Your task to perform on an android device: Open Maps and search for coffee Image 0: 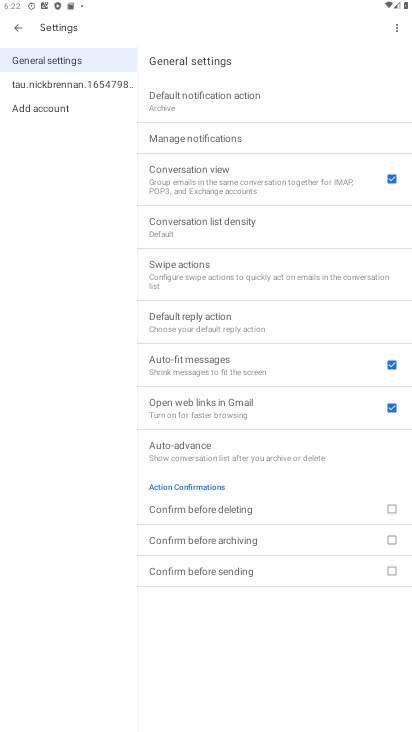
Step 0: press home button
Your task to perform on an android device: Open Maps and search for coffee Image 1: 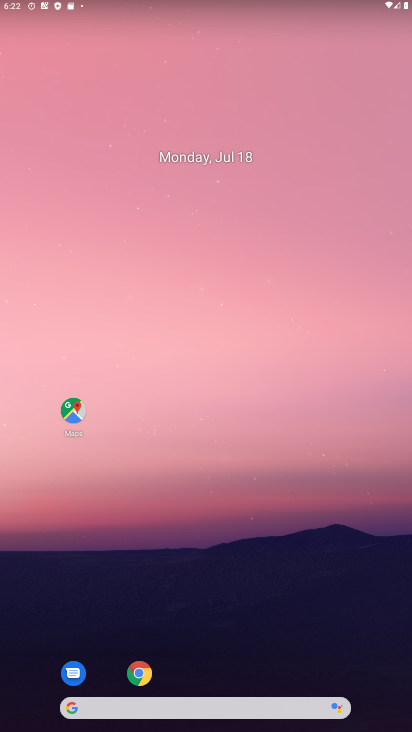
Step 1: click (77, 411)
Your task to perform on an android device: Open Maps and search for coffee Image 2: 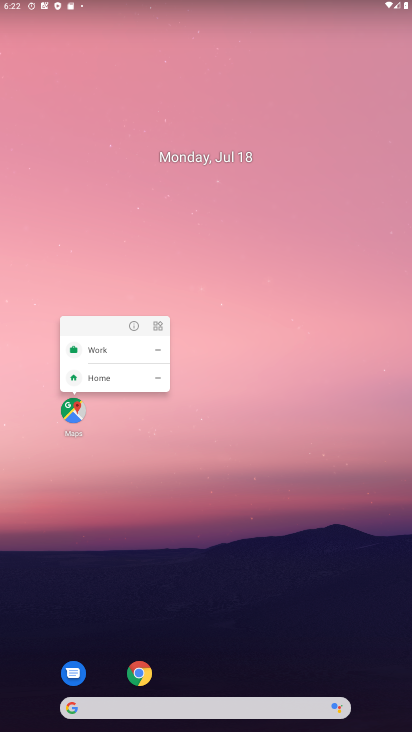
Step 2: click (77, 411)
Your task to perform on an android device: Open Maps and search for coffee Image 3: 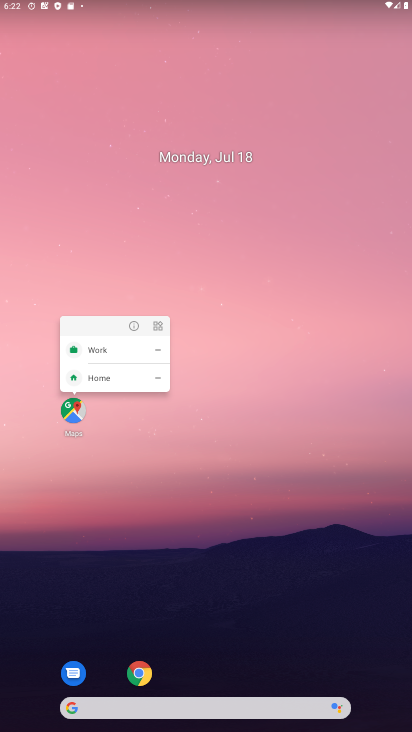
Step 3: click (77, 411)
Your task to perform on an android device: Open Maps and search for coffee Image 4: 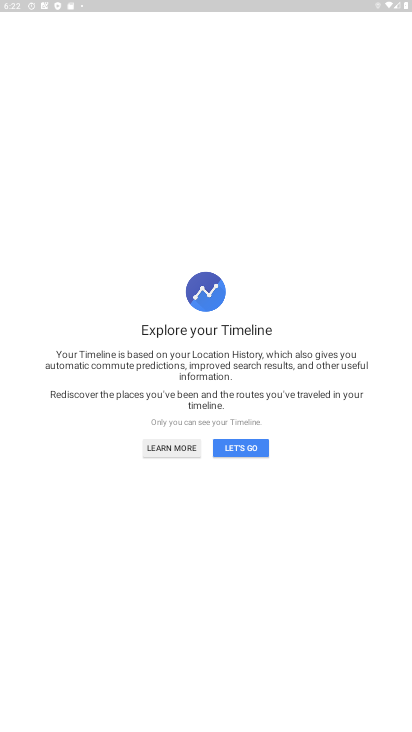
Step 4: click (230, 442)
Your task to perform on an android device: Open Maps and search for coffee Image 5: 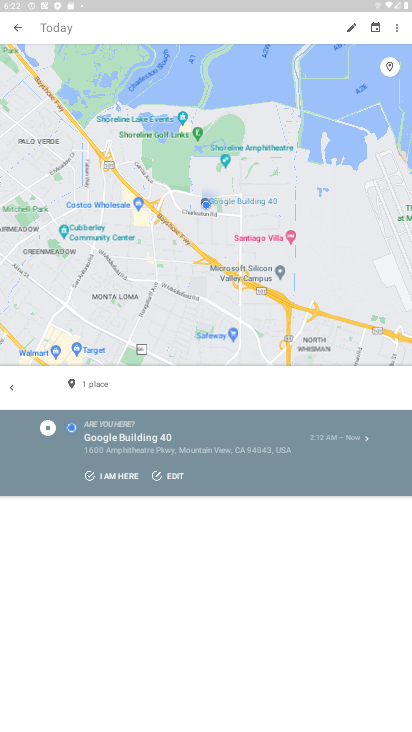
Step 5: click (17, 24)
Your task to perform on an android device: Open Maps and search for coffee Image 6: 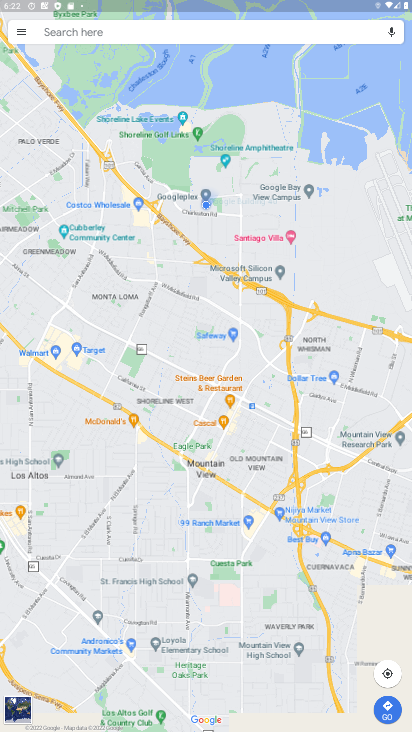
Step 6: click (82, 31)
Your task to perform on an android device: Open Maps and search for coffee Image 7: 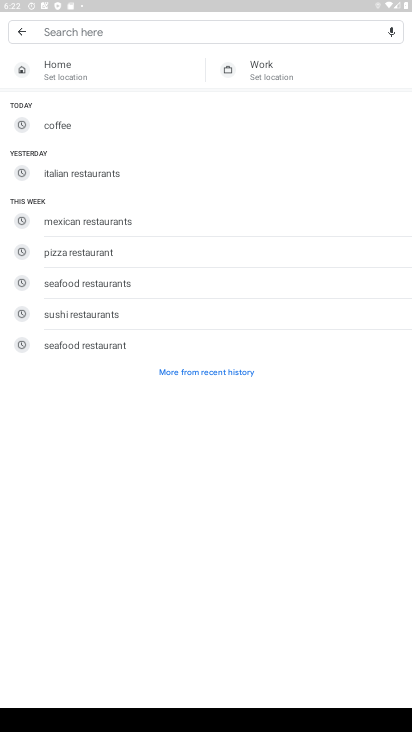
Step 7: type "coffee"
Your task to perform on an android device: Open Maps and search for coffee Image 8: 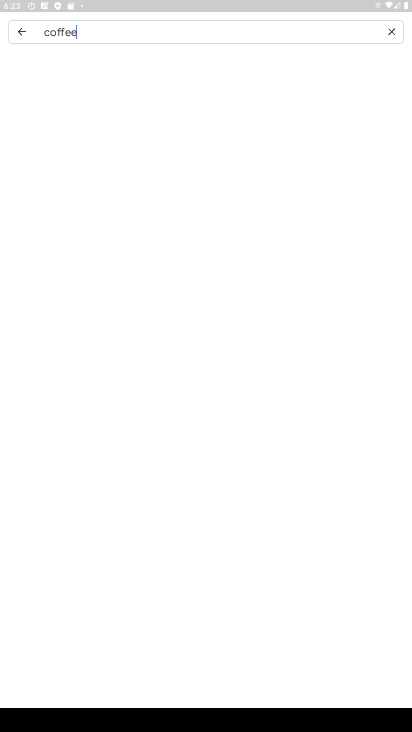
Step 8: press enter
Your task to perform on an android device: Open Maps and search for coffee Image 9: 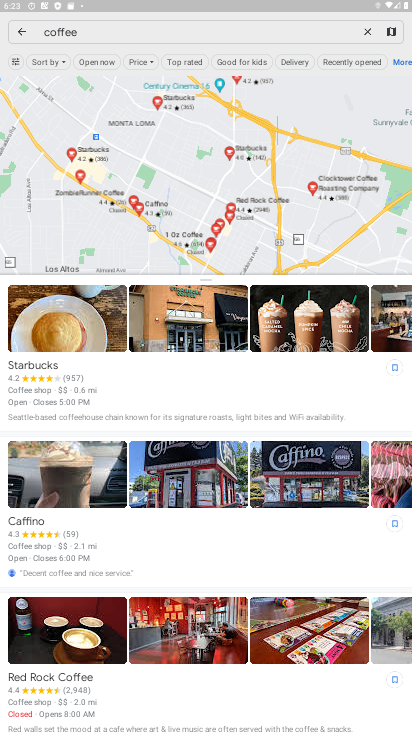
Step 9: task complete